Your task to perform on an android device: turn on bluetooth scan Image 0: 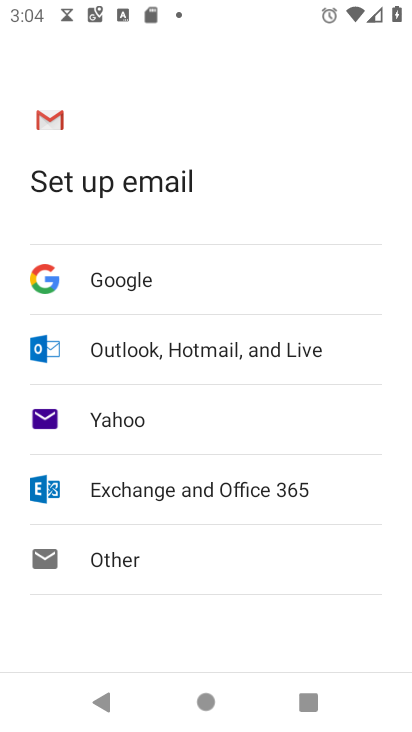
Step 0: press home button
Your task to perform on an android device: turn on bluetooth scan Image 1: 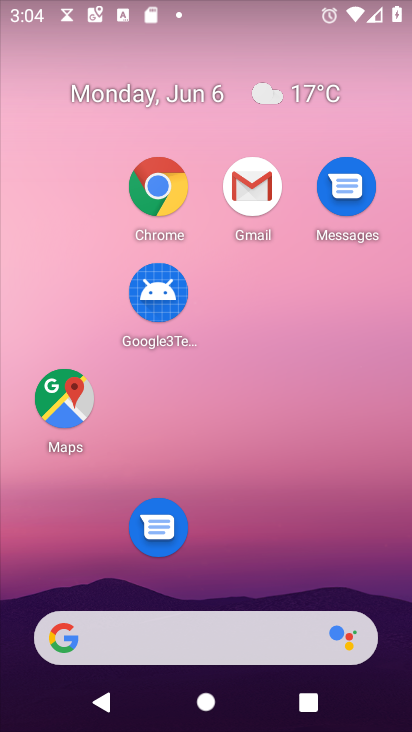
Step 1: drag from (311, 553) to (256, 106)
Your task to perform on an android device: turn on bluetooth scan Image 2: 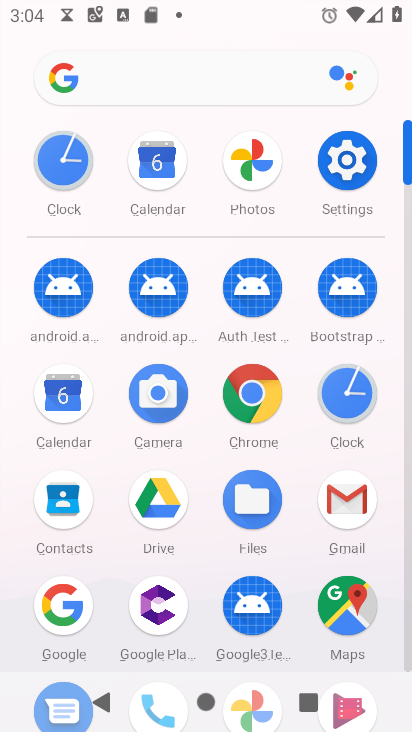
Step 2: click (354, 179)
Your task to perform on an android device: turn on bluetooth scan Image 3: 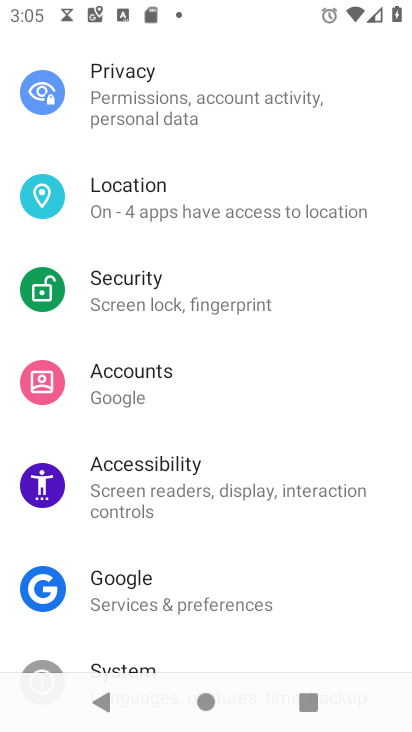
Step 3: drag from (204, 578) to (224, 227)
Your task to perform on an android device: turn on bluetooth scan Image 4: 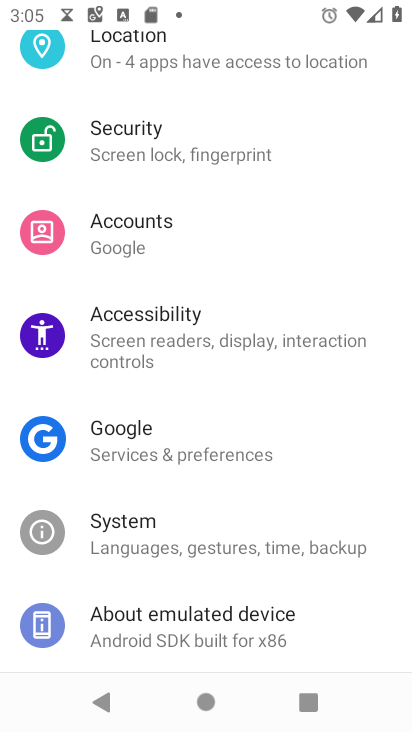
Step 4: click (239, 57)
Your task to perform on an android device: turn on bluetooth scan Image 5: 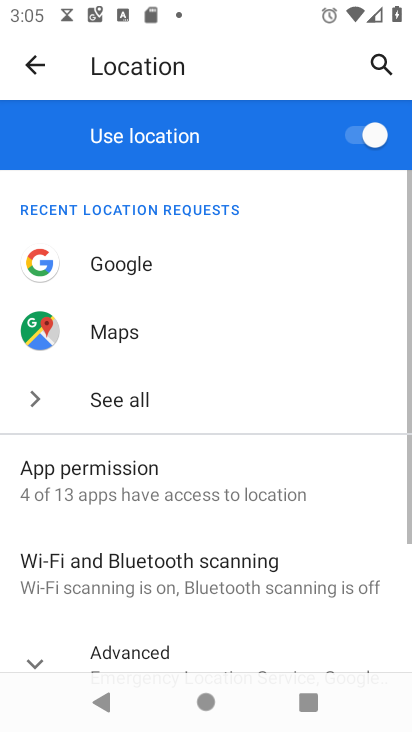
Step 5: drag from (248, 610) to (282, 406)
Your task to perform on an android device: turn on bluetooth scan Image 6: 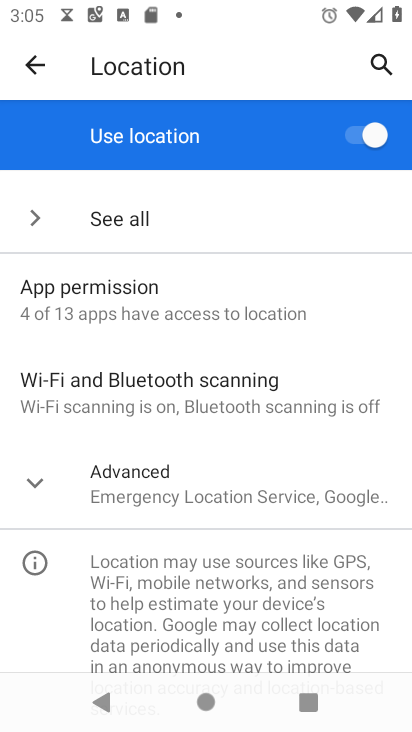
Step 6: click (250, 386)
Your task to perform on an android device: turn on bluetooth scan Image 7: 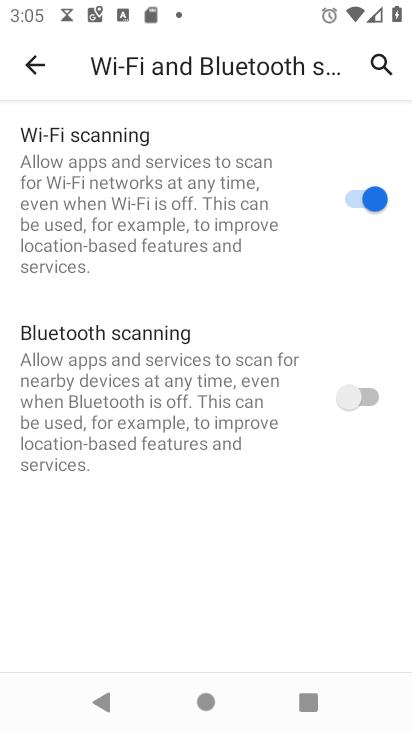
Step 7: click (369, 397)
Your task to perform on an android device: turn on bluetooth scan Image 8: 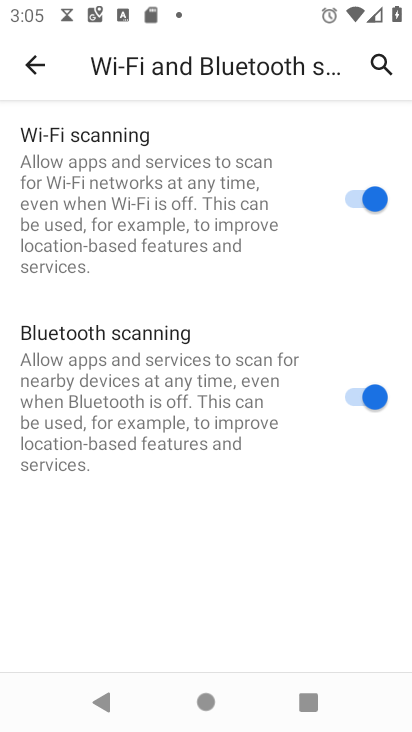
Step 8: task complete